Your task to perform on an android device: toggle location history Image 0: 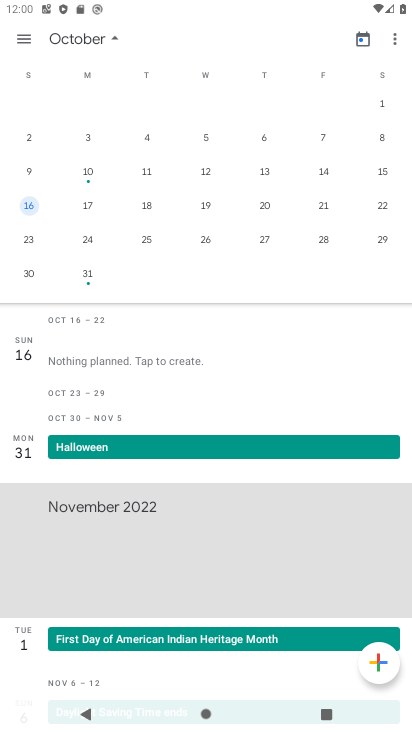
Step 0: press home button
Your task to perform on an android device: toggle location history Image 1: 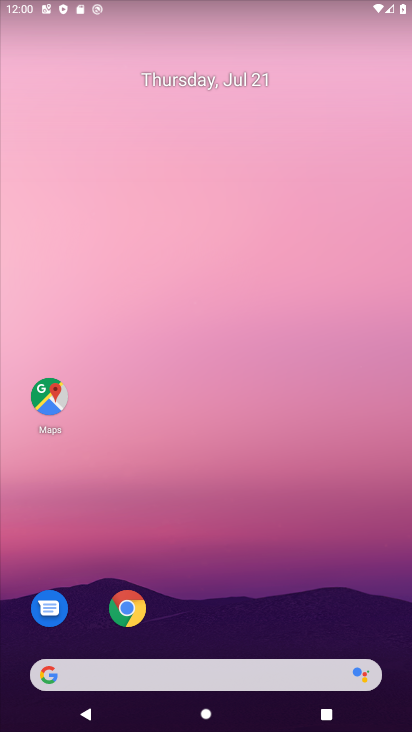
Step 1: drag from (373, 623) to (149, 0)
Your task to perform on an android device: toggle location history Image 2: 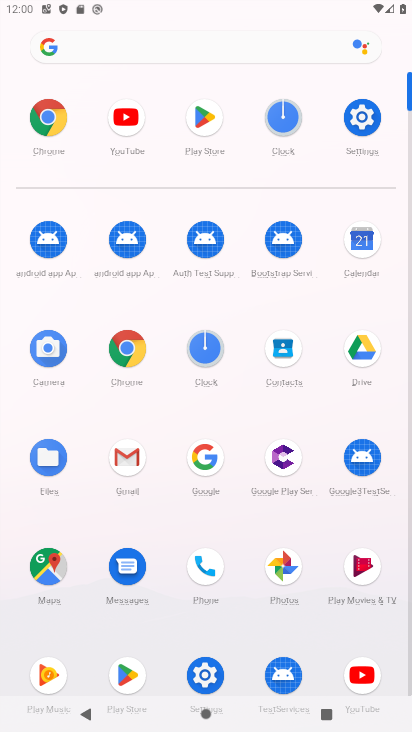
Step 2: click (369, 115)
Your task to perform on an android device: toggle location history Image 3: 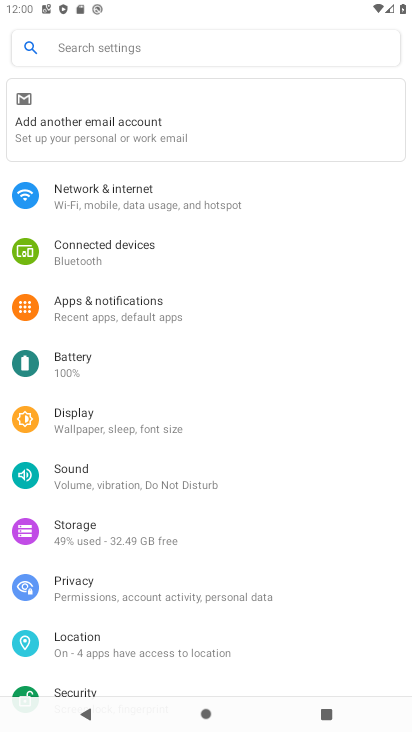
Step 3: click (75, 638)
Your task to perform on an android device: toggle location history Image 4: 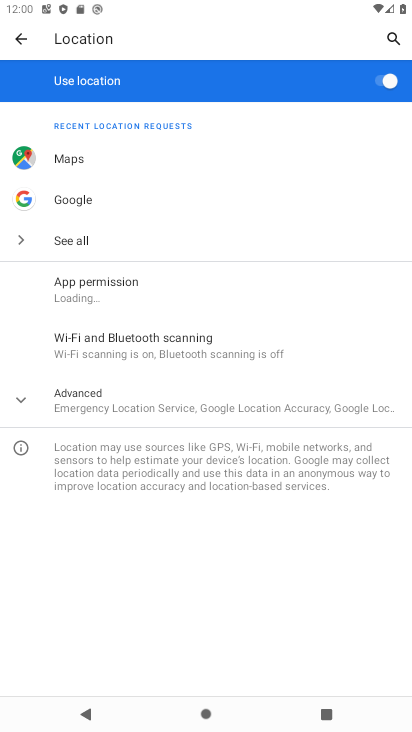
Step 4: click (150, 393)
Your task to perform on an android device: toggle location history Image 5: 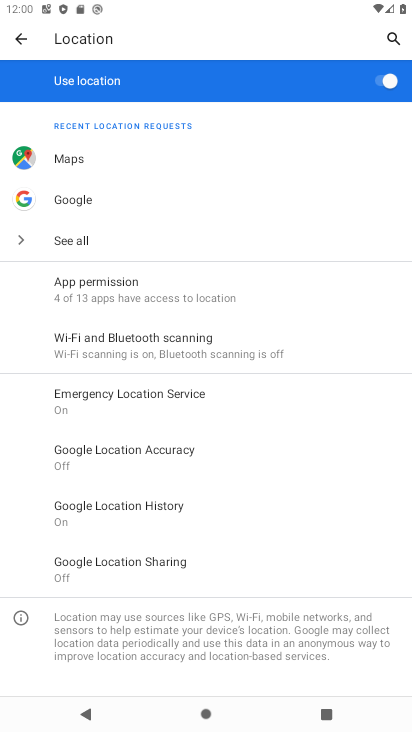
Step 5: click (140, 517)
Your task to perform on an android device: toggle location history Image 6: 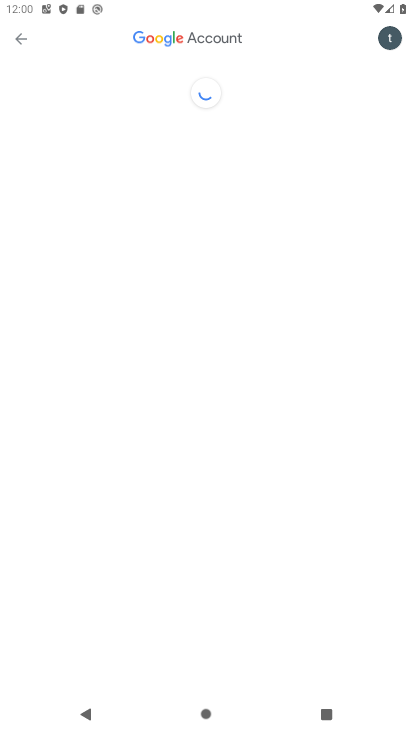
Step 6: click (353, 473)
Your task to perform on an android device: toggle location history Image 7: 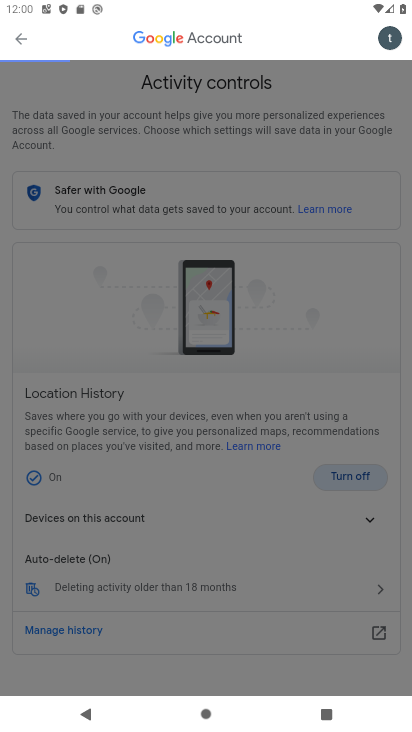
Step 7: click (362, 476)
Your task to perform on an android device: toggle location history Image 8: 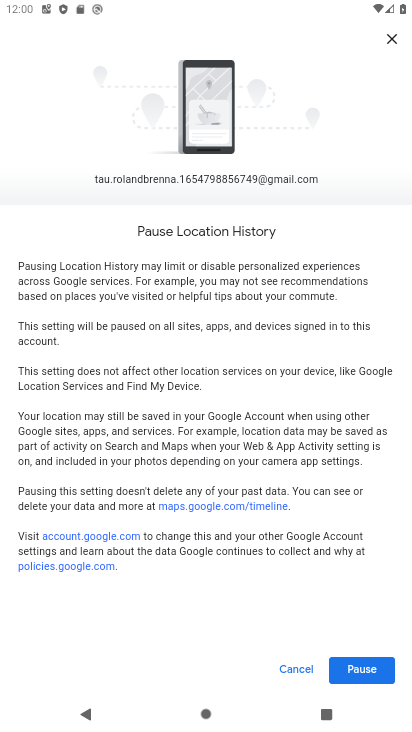
Step 8: task complete